Your task to perform on an android device: turn notification dots off Image 0: 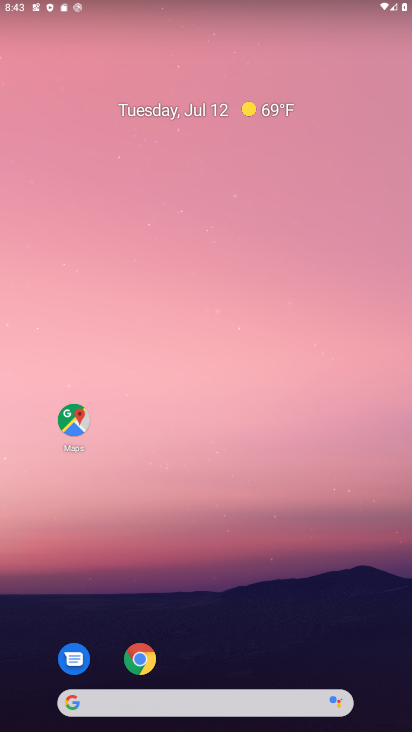
Step 0: click (186, 252)
Your task to perform on an android device: turn notification dots off Image 1: 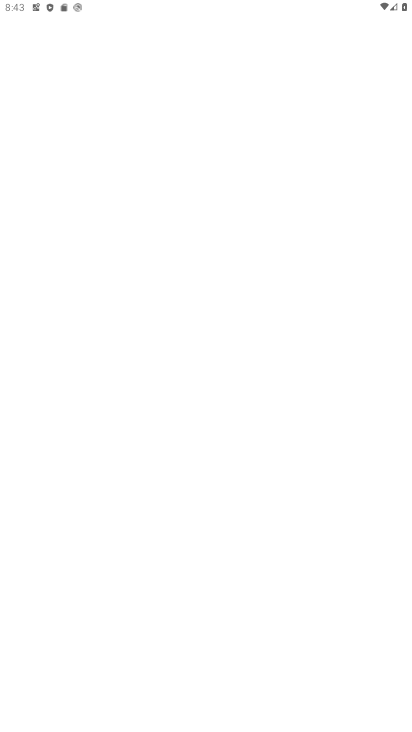
Step 1: press home button
Your task to perform on an android device: turn notification dots off Image 2: 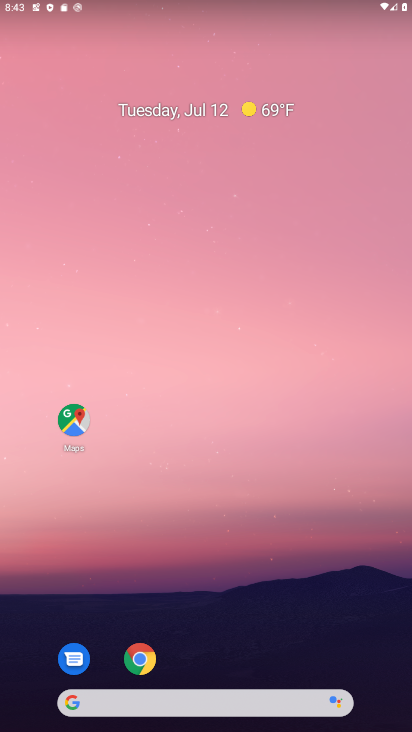
Step 2: drag from (236, 713) to (228, 143)
Your task to perform on an android device: turn notification dots off Image 3: 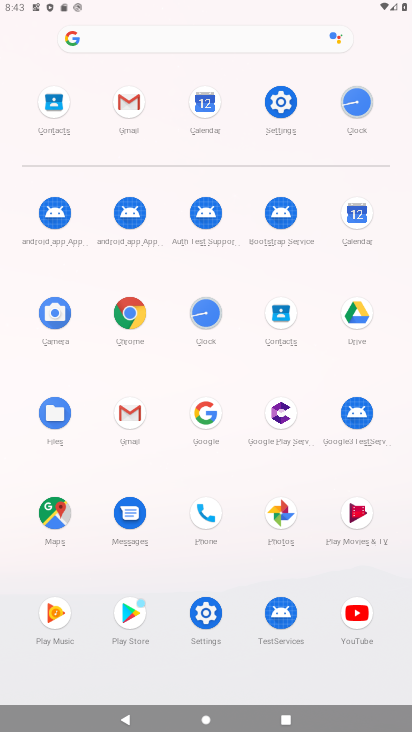
Step 3: click (277, 98)
Your task to perform on an android device: turn notification dots off Image 4: 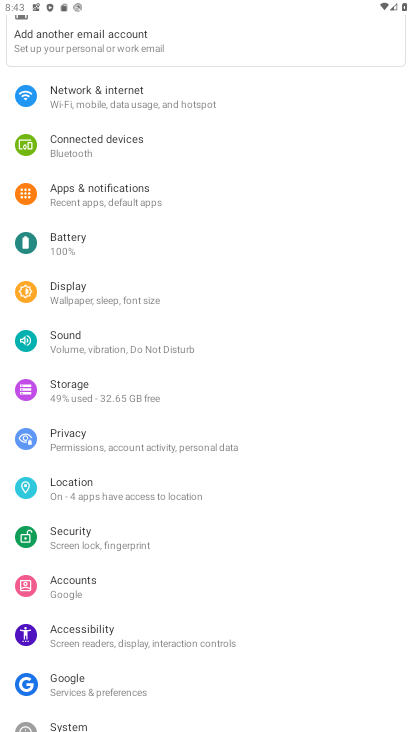
Step 4: click (116, 196)
Your task to perform on an android device: turn notification dots off Image 5: 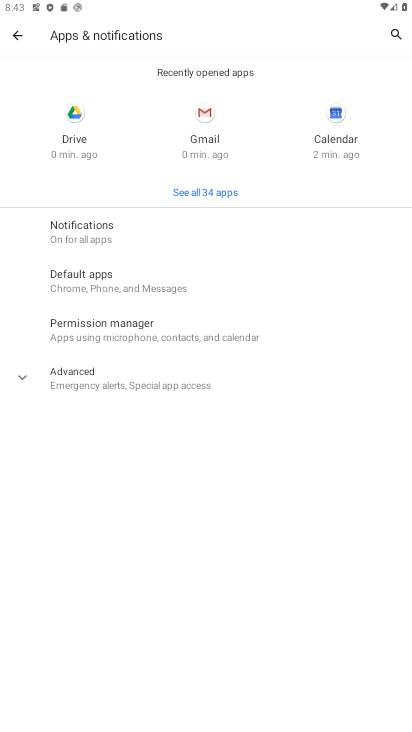
Step 5: click (82, 225)
Your task to perform on an android device: turn notification dots off Image 6: 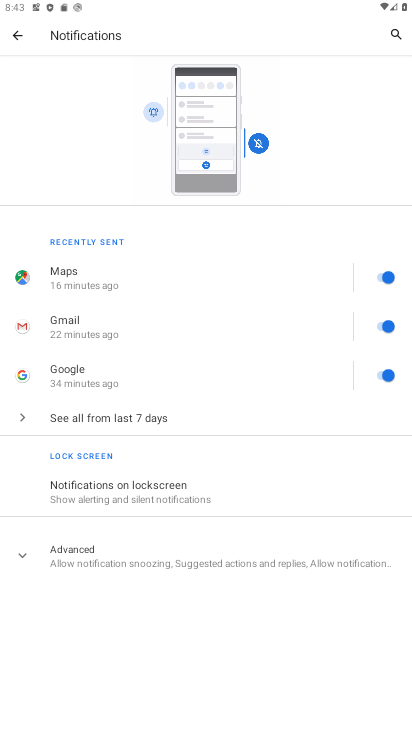
Step 6: click (74, 552)
Your task to perform on an android device: turn notification dots off Image 7: 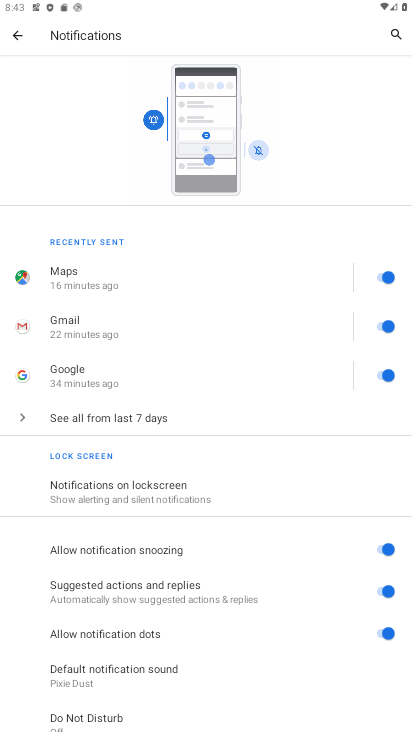
Step 7: click (385, 633)
Your task to perform on an android device: turn notification dots off Image 8: 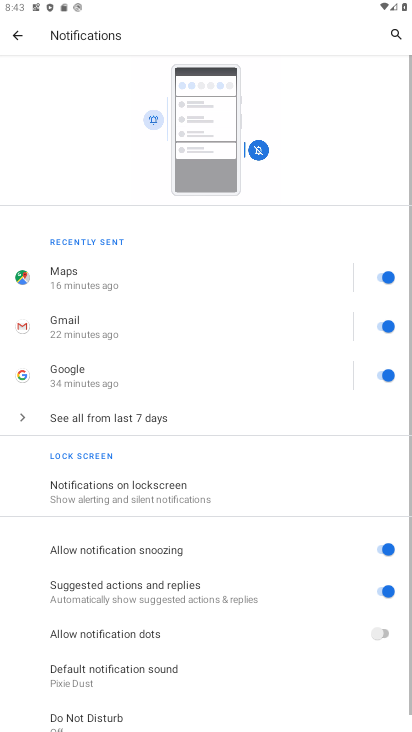
Step 8: task complete